Your task to perform on an android device: open app "eBay: The shopping marketplace" (install if not already installed) Image 0: 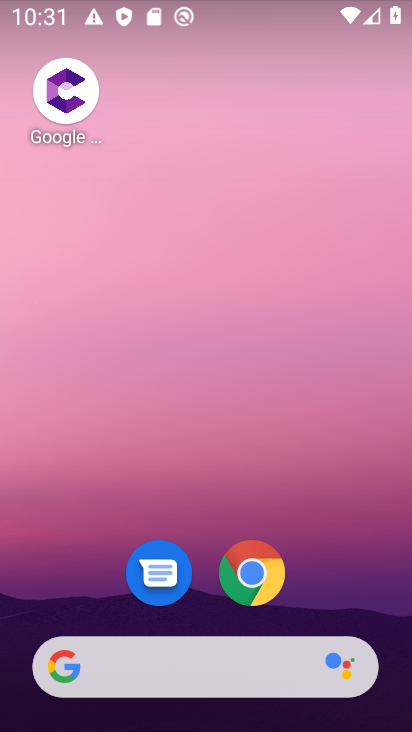
Step 0: drag from (354, 527) to (359, 88)
Your task to perform on an android device: open app "eBay: The shopping marketplace" (install if not already installed) Image 1: 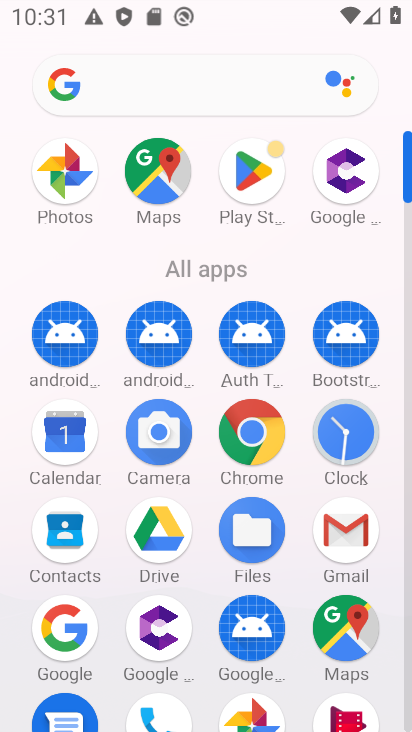
Step 1: drag from (389, 639) to (384, 282)
Your task to perform on an android device: open app "eBay: The shopping marketplace" (install if not already installed) Image 2: 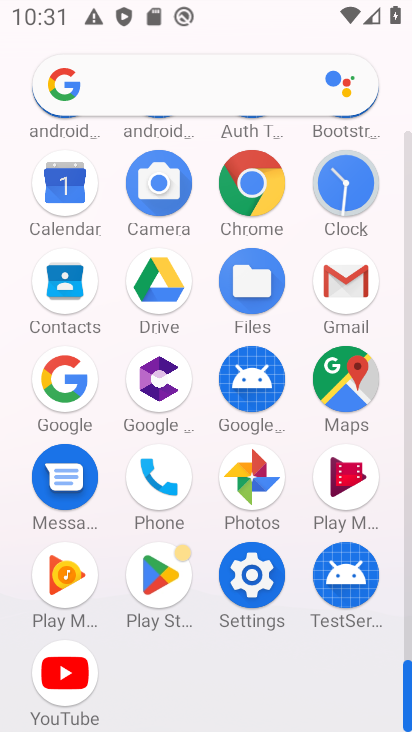
Step 2: click (157, 593)
Your task to perform on an android device: open app "eBay: The shopping marketplace" (install if not already installed) Image 3: 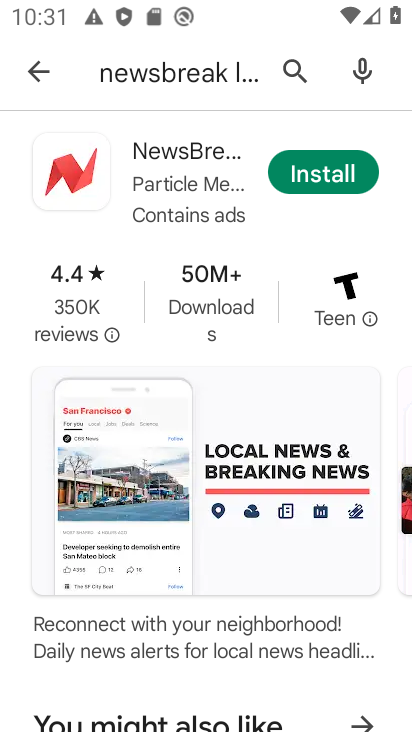
Step 3: click (293, 73)
Your task to perform on an android device: open app "eBay: The shopping marketplace" (install if not already installed) Image 4: 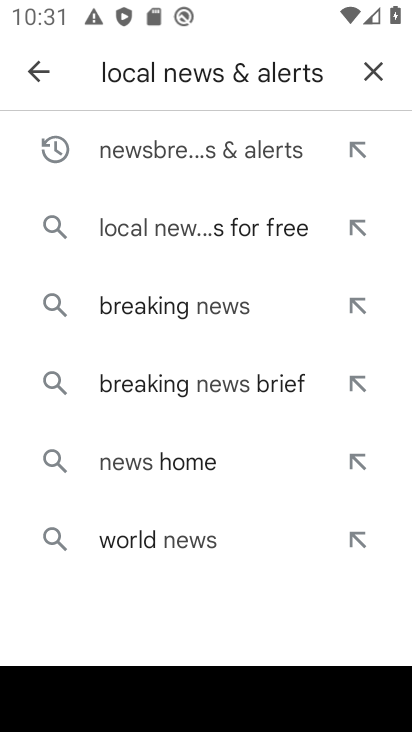
Step 4: click (368, 74)
Your task to perform on an android device: open app "eBay: The shopping marketplace" (install if not already installed) Image 5: 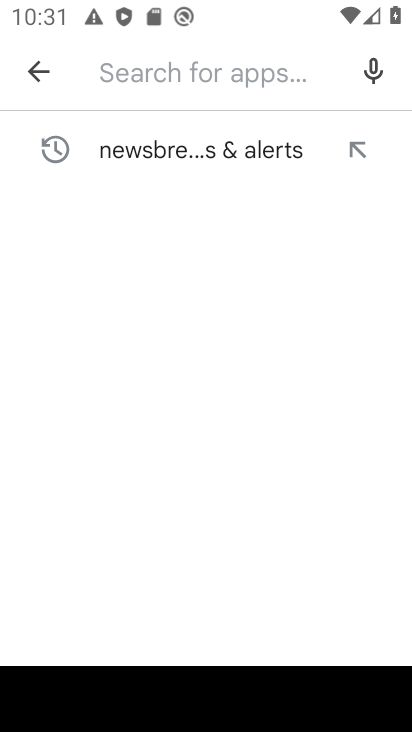
Step 5: click (252, 77)
Your task to perform on an android device: open app "eBay: The shopping marketplace" (install if not already installed) Image 6: 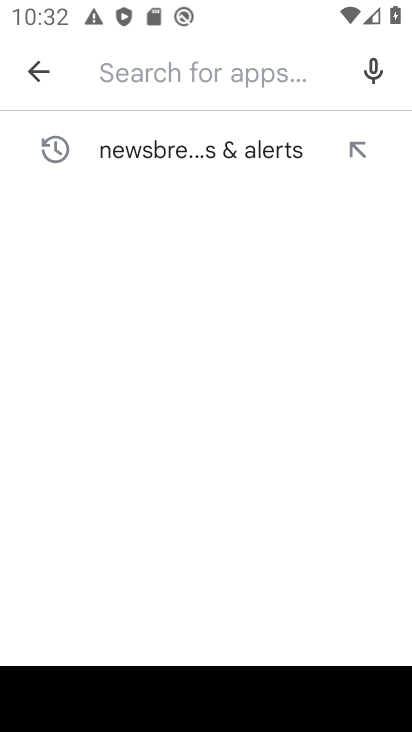
Step 6: type "eBay: The shopping marketplace"
Your task to perform on an android device: open app "eBay: The shopping marketplace" (install if not already installed) Image 7: 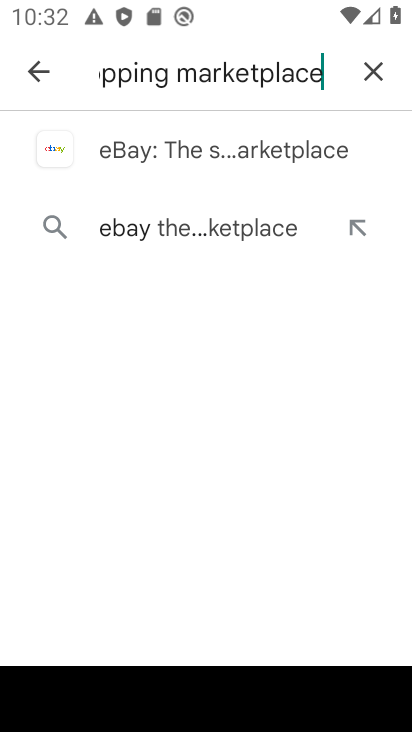
Step 7: click (266, 156)
Your task to perform on an android device: open app "eBay: The shopping marketplace" (install if not already installed) Image 8: 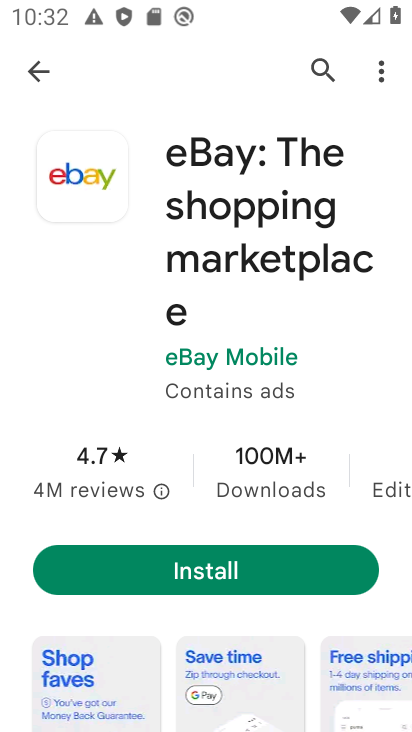
Step 8: click (222, 575)
Your task to perform on an android device: open app "eBay: The shopping marketplace" (install if not already installed) Image 9: 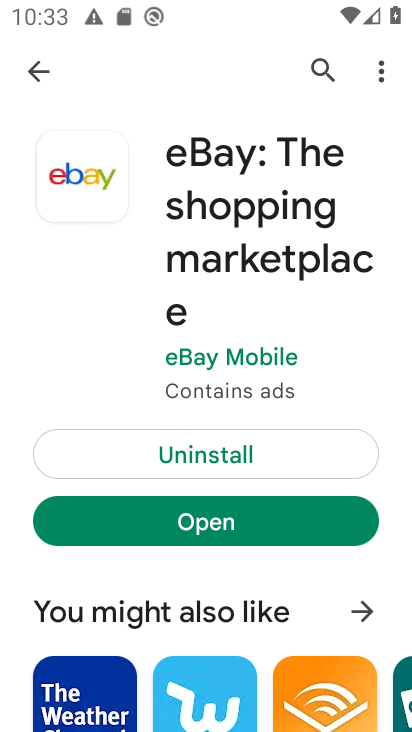
Step 9: click (272, 521)
Your task to perform on an android device: open app "eBay: The shopping marketplace" (install if not already installed) Image 10: 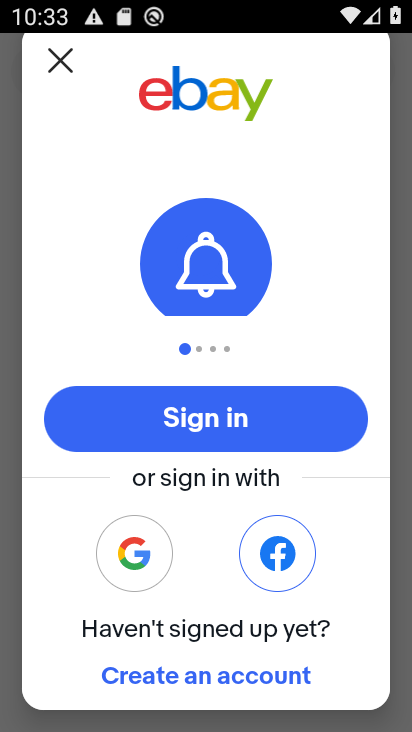
Step 10: task complete